Your task to perform on an android device: add a contact in the contacts app Image 0: 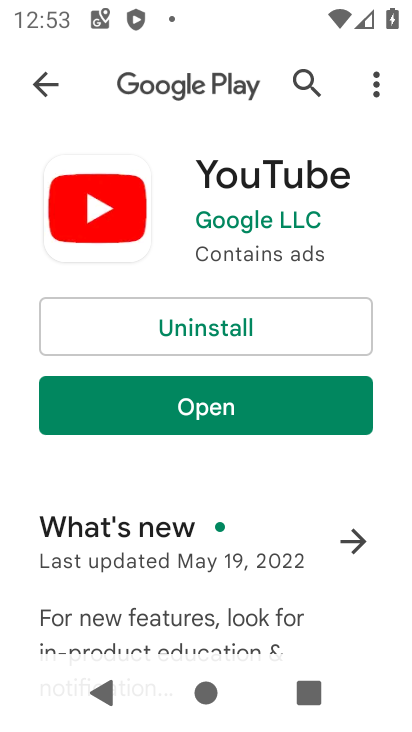
Step 0: press home button
Your task to perform on an android device: add a contact in the contacts app Image 1: 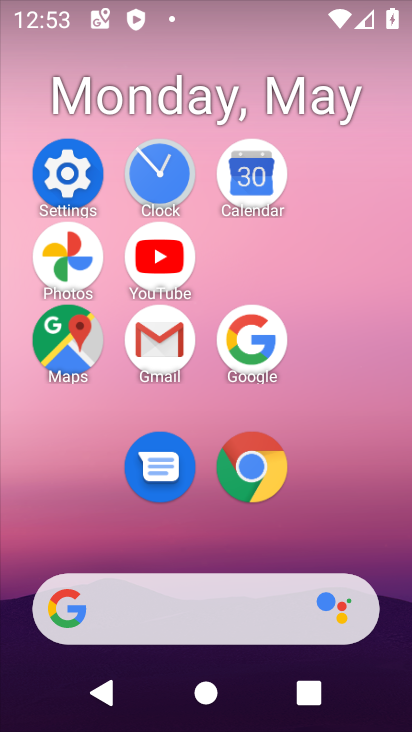
Step 1: drag from (340, 480) to (379, 143)
Your task to perform on an android device: add a contact in the contacts app Image 2: 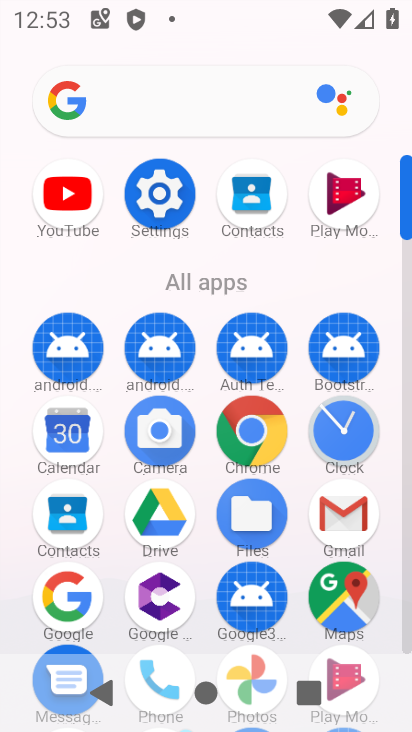
Step 2: drag from (240, 198) to (241, 264)
Your task to perform on an android device: add a contact in the contacts app Image 3: 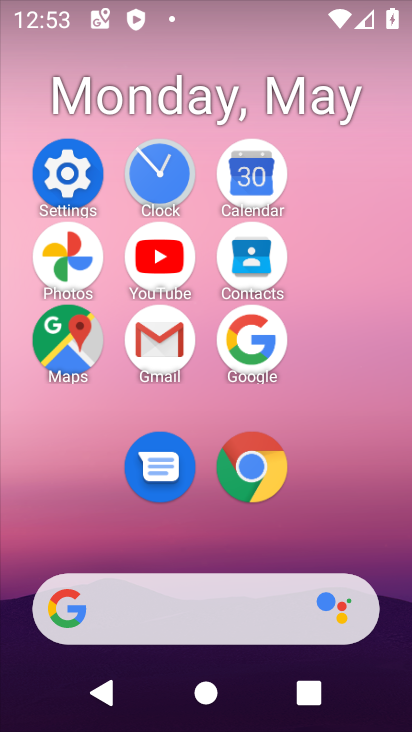
Step 3: click (243, 262)
Your task to perform on an android device: add a contact in the contacts app Image 4: 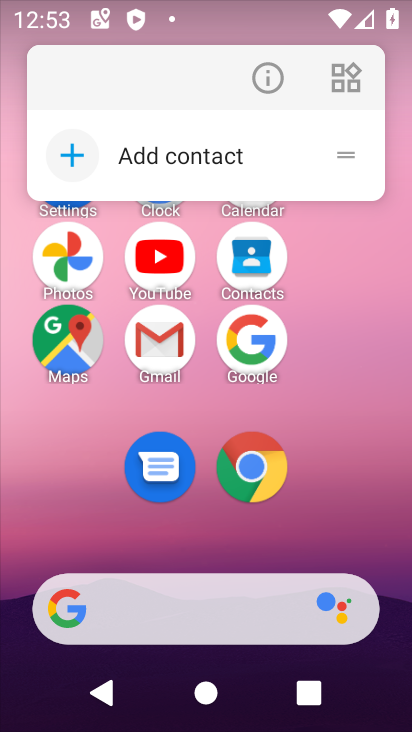
Step 4: click (243, 262)
Your task to perform on an android device: add a contact in the contacts app Image 5: 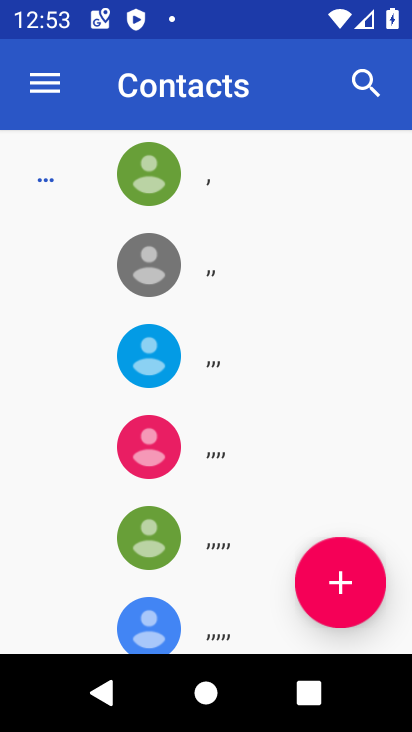
Step 5: click (360, 593)
Your task to perform on an android device: add a contact in the contacts app Image 6: 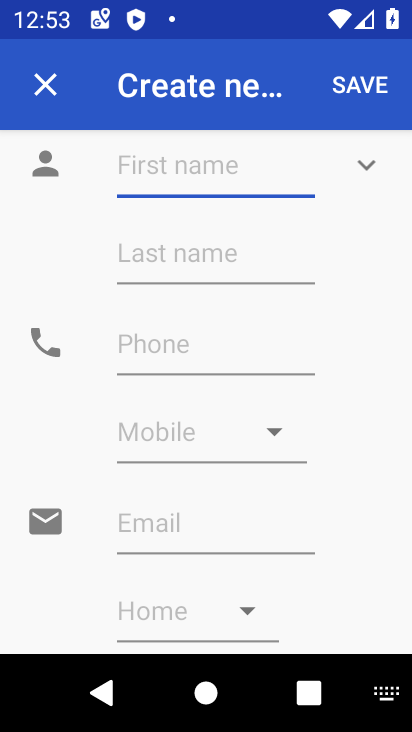
Step 6: type "qqwwdf"
Your task to perform on an android device: add a contact in the contacts app Image 7: 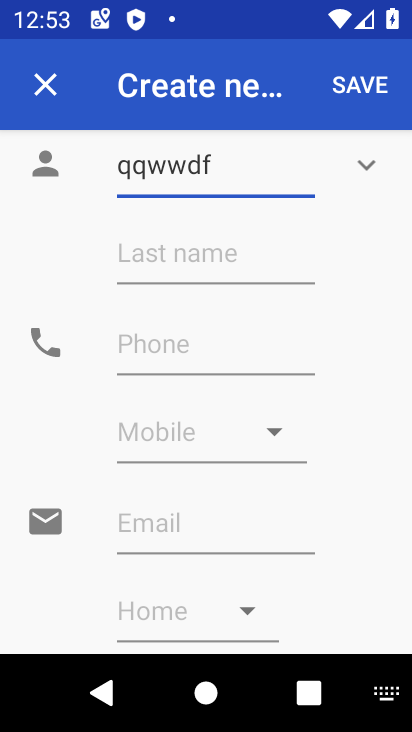
Step 7: click (183, 356)
Your task to perform on an android device: add a contact in the contacts app Image 8: 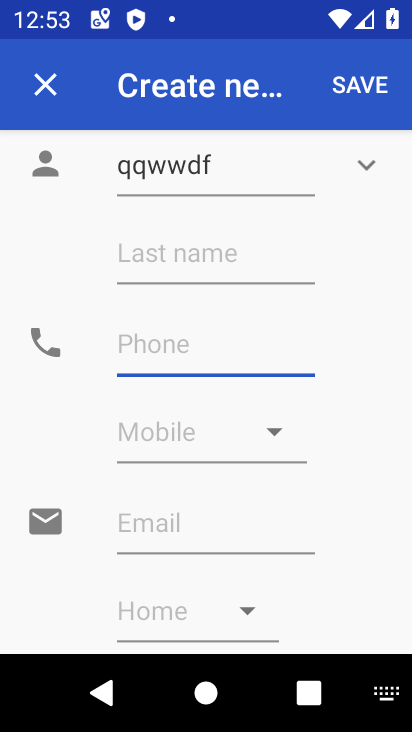
Step 8: type "7766443212"
Your task to perform on an android device: add a contact in the contacts app Image 9: 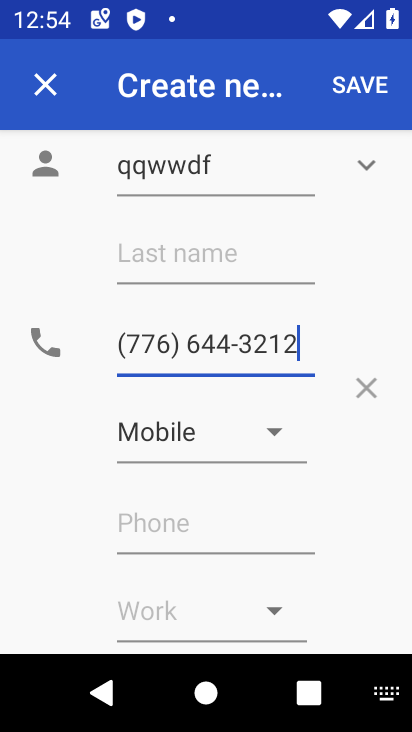
Step 9: click (378, 86)
Your task to perform on an android device: add a contact in the contacts app Image 10: 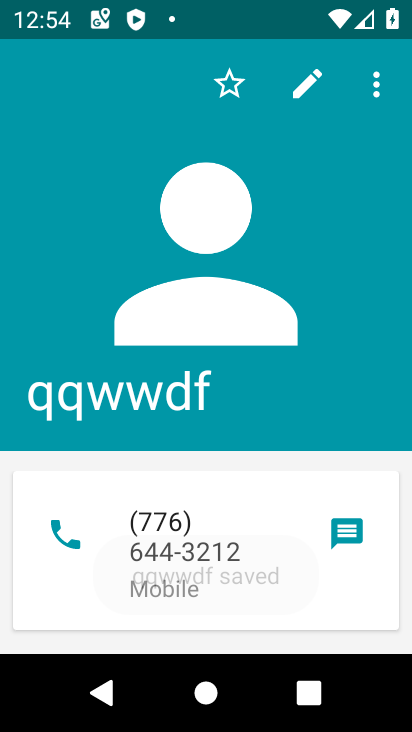
Step 10: task complete